Your task to perform on an android device: delete location history Image 0: 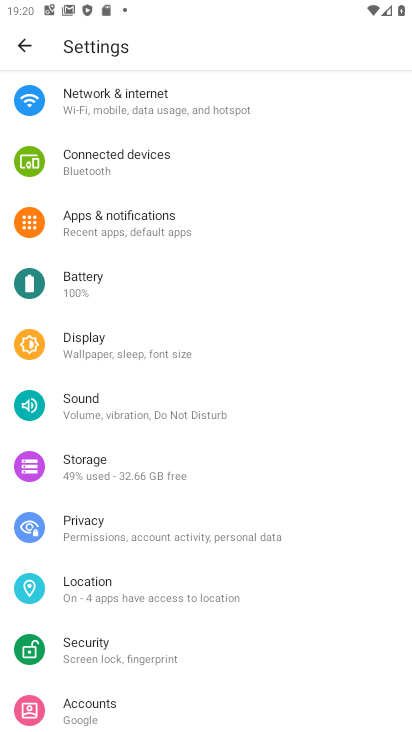
Step 0: press home button
Your task to perform on an android device: delete location history Image 1: 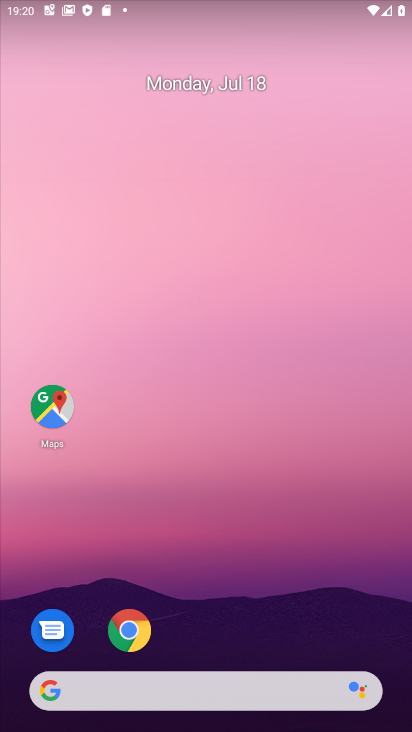
Step 1: drag from (265, 627) to (261, 95)
Your task to perform on an android device: delete location history Image 2: 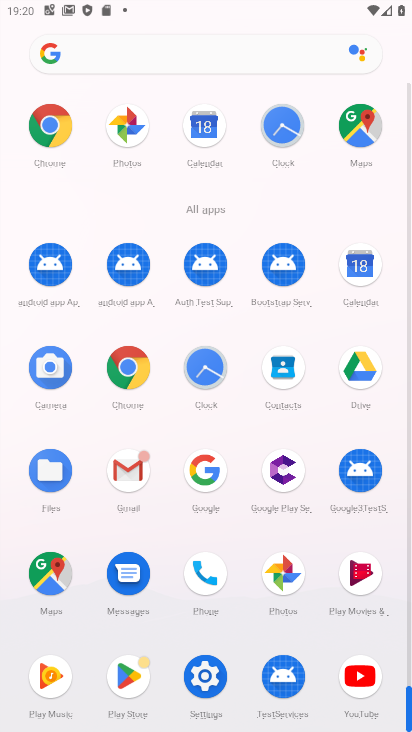
Step 2: click (33, 563)
Your task to perform on an android device: delete location history Image 3: 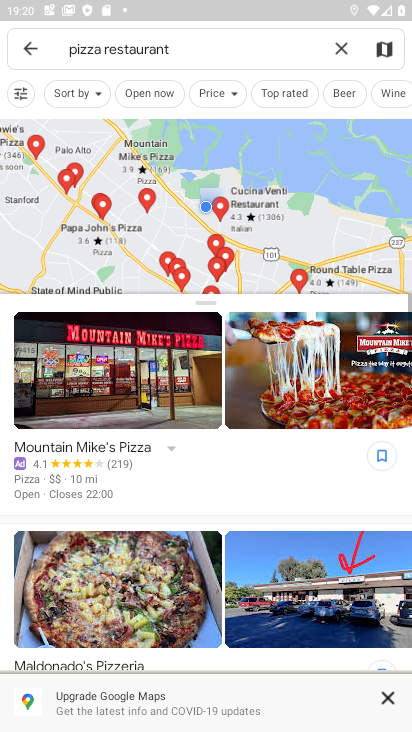
Step 3: click (32, 60)
Your task to perform on an android device: delete location history Image 4: 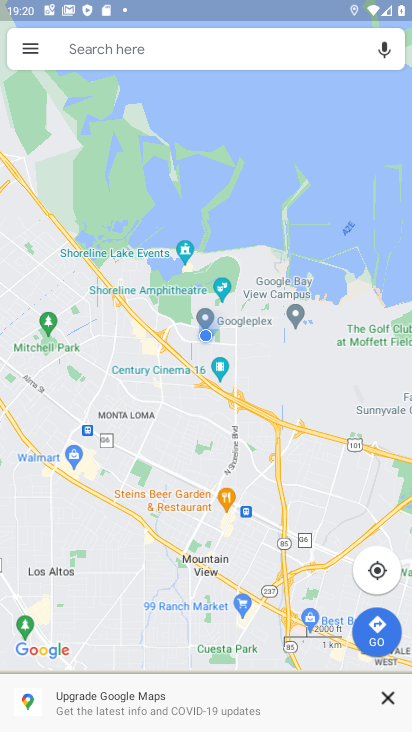
Step 4: click (30, 59)
Your task to perform on an android device: delete location history Image 5: 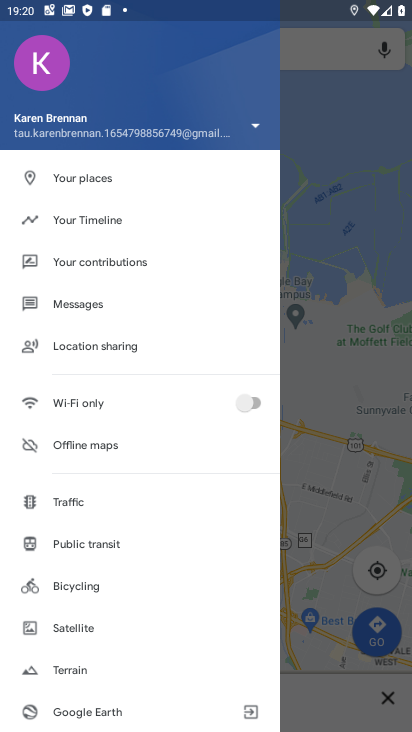
Step 5: click (71, 214)
Your task to perform on an android device: delete location history Image 6: 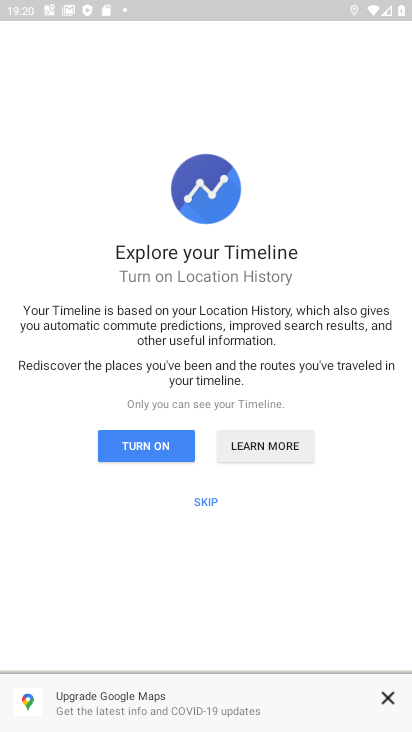
Step 6: click (211, 501)
Your task to perform on an android device: delete location history Image 7: 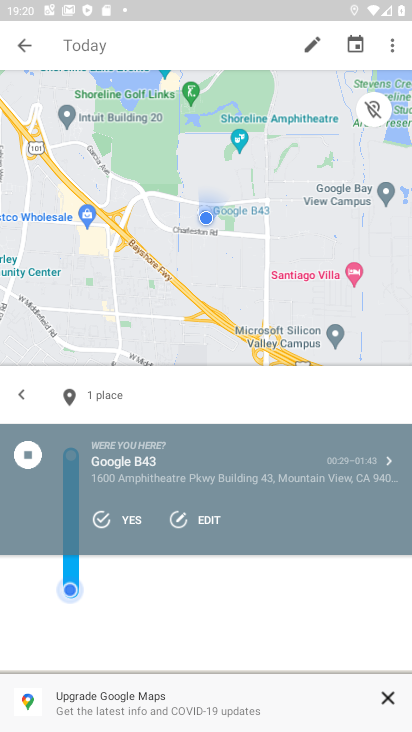
Step 7: click (389, 52)
Your task to perform on an android device: delete location history Image 8: 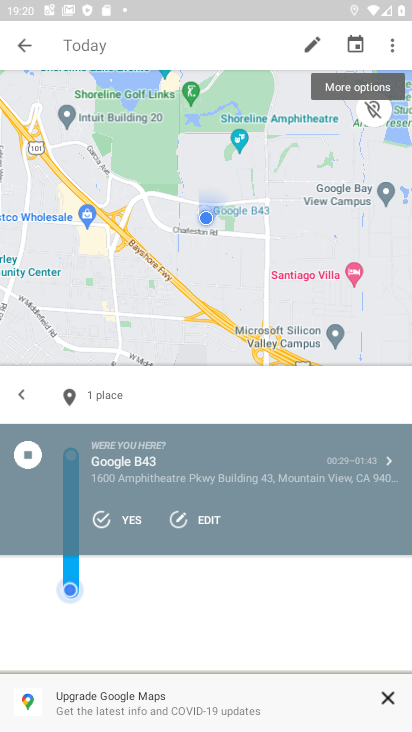
Step 8: click (389, 51)
Your task to perform on an android device: delete location history Image 9: 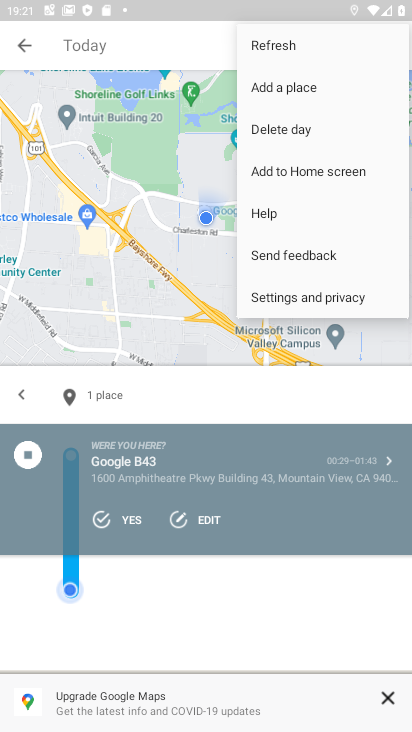
Step 9: click (293, 299)
Your task to perform on an android device: delete location history Image 10: 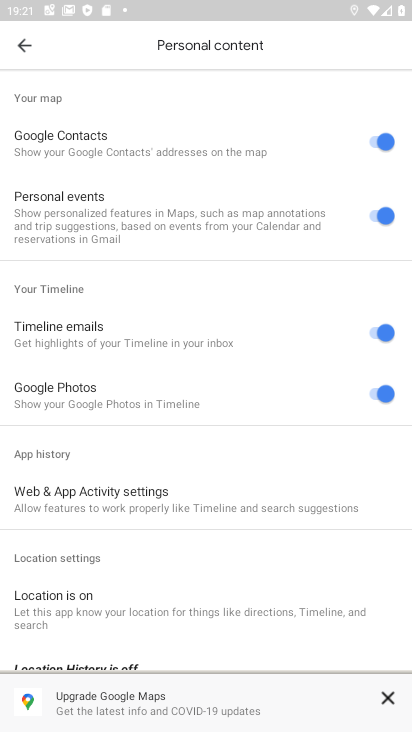
Step 10: drag from (122, 636) to (121, 163)
Your task to perform on an android device: delete location history Image 11: 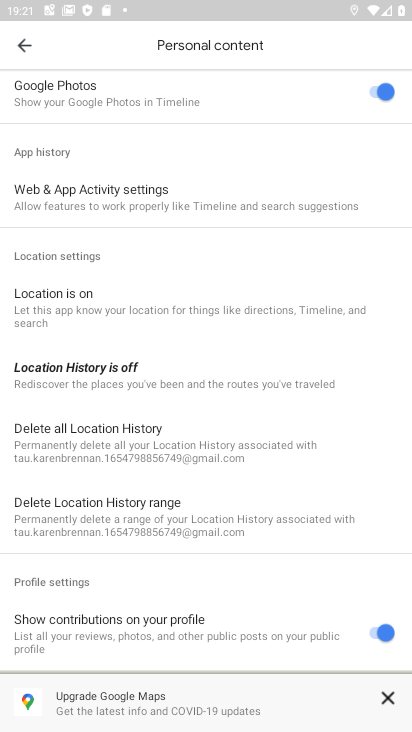
Step 11: click (86, 517)
Your task to perform on an android device: delete location history Image 12: 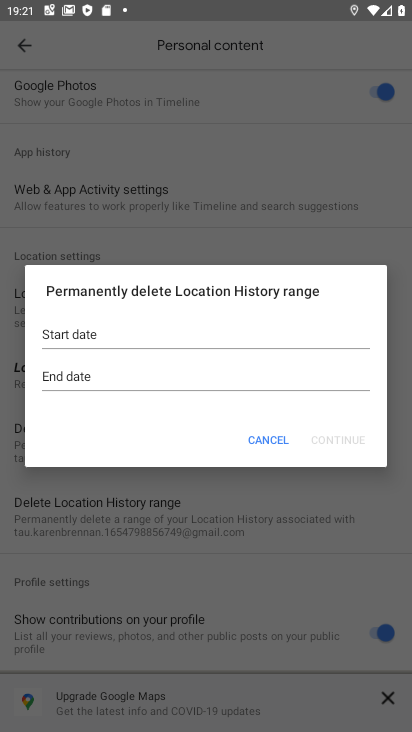
Step 12: click (268, 440)
Your task to perform on an android device: delete location history Image 13: 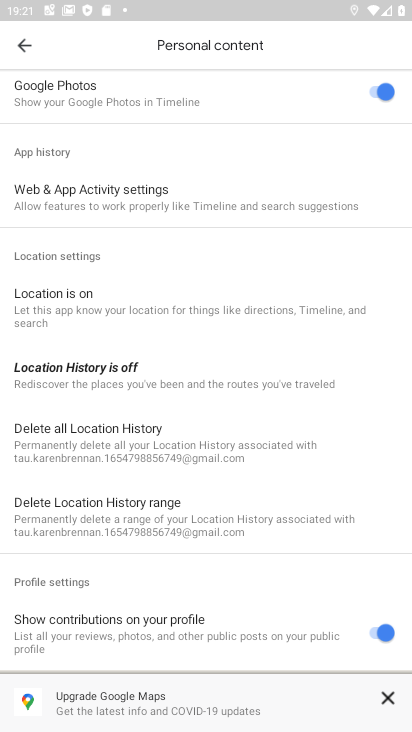
Step 13: drag from (224, 549) to (220, 394)
Your task to perform on an android device: delete location history Image 14: 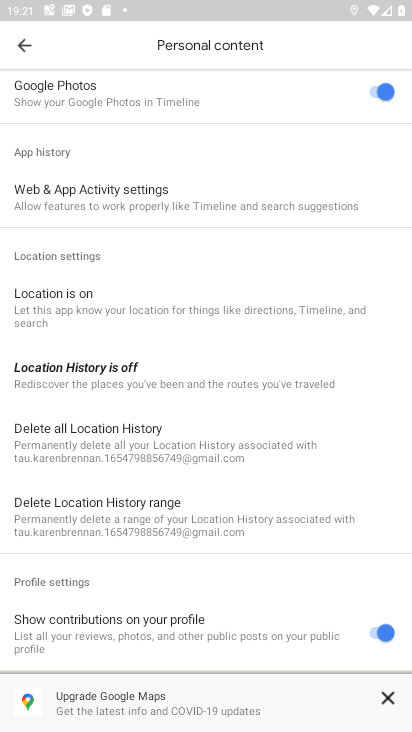
Step 14: drag from (228, 521) to (165, 142)
Your task to perform on an android device: delete location history Image 15: 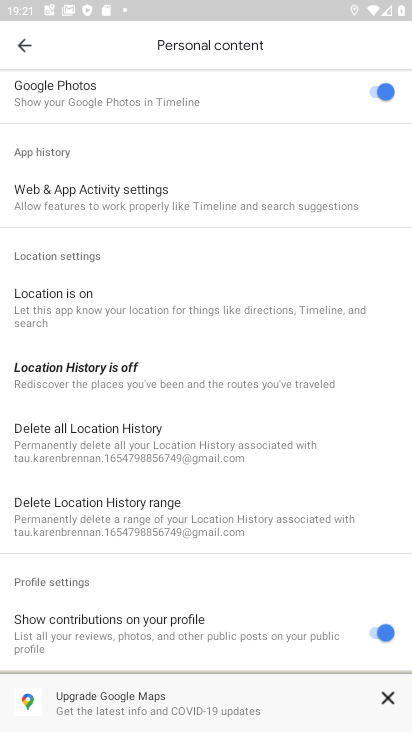
Step 15: click (392, 698)
Your task to perform on an android device: delete location history Image 16: 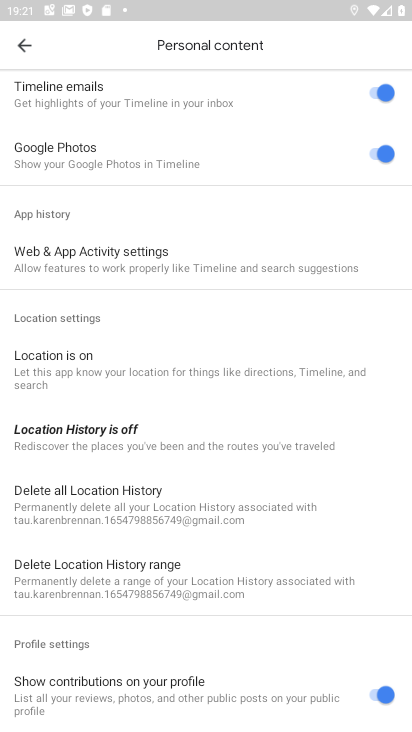
Step 16: click (92, 509)
Your task to perform on an android device: delete location history Image 17: 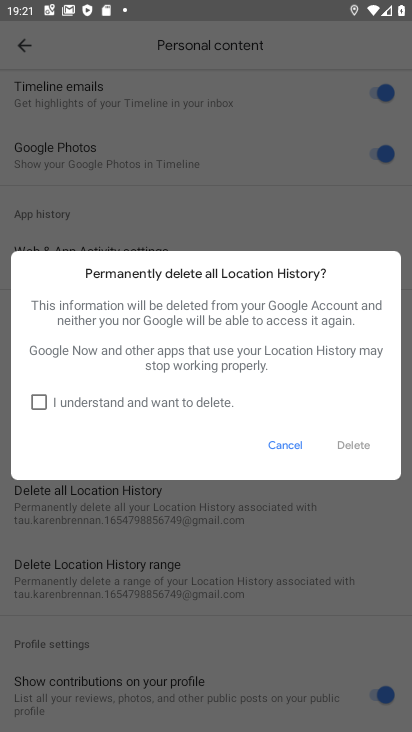
Step 17: click (46, 410)
Your task to perform on an android device: delete location history Image 18: 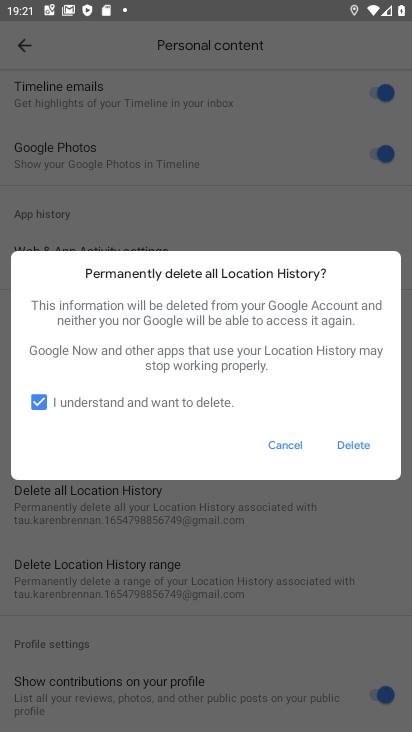
Step 18: click (357, 442)
Your task to perform on an android device: delete location history Image 19: 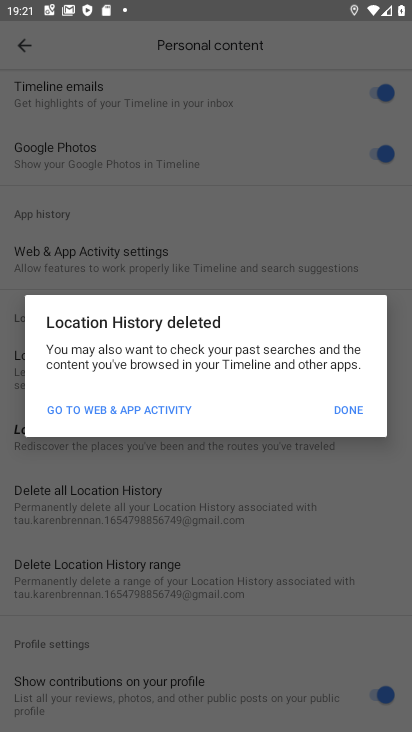
Step 19: click (343, 411)
Your task to perform on an android device: delete location history Image 20: 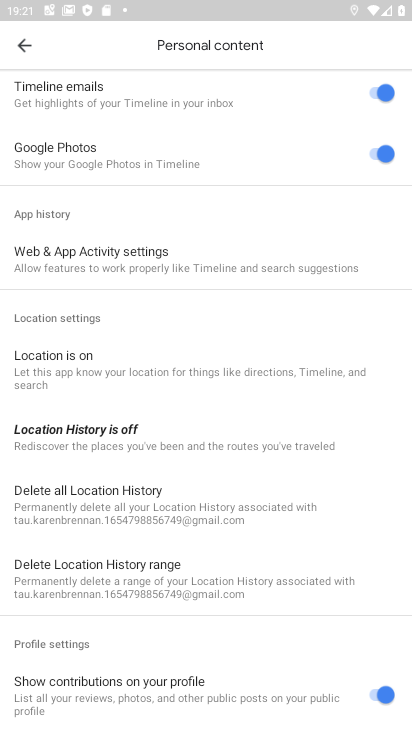
Step 20: task complete